Your task to perform on an android device: What's the weather going to be this weekend? Image 0: 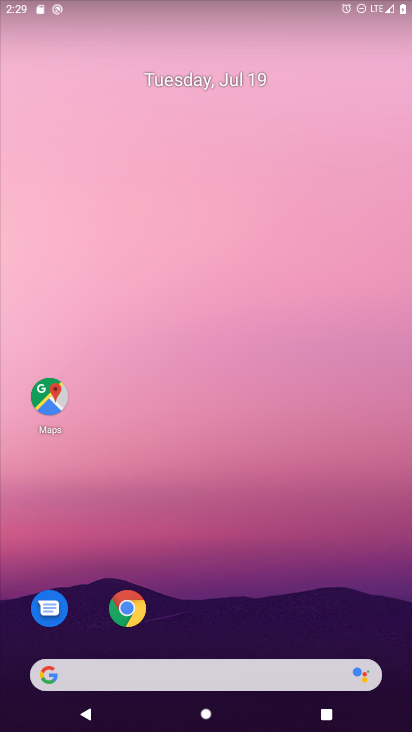
Step 0: drag from (173, 603) to (266, 146)
Your task to perform on an android device: What's the weather going to be this weekend? Image 1: 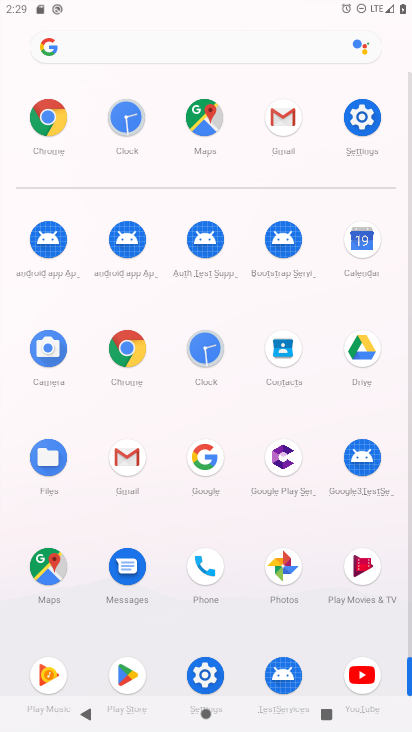
Step 1: click (119, 353)
Your task to perform on an android device: What's the weather going to be this weekend? Image 2: 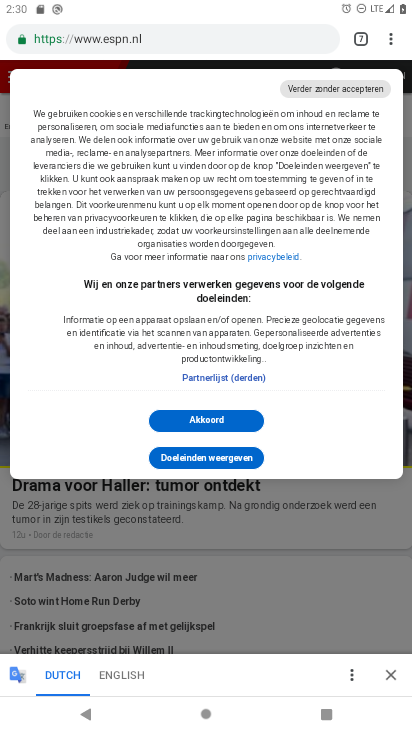
Step 2: click (361, 44)
Your task to perform on an android device: What's the weather going to be this weekend? Image 3: 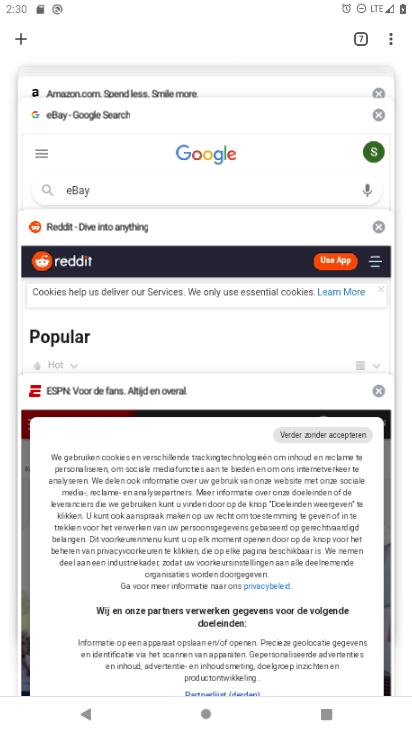
Step 3: click (25, 46)
Your task to perform on an android device: What's the weather going to be this weekend? Image 4: 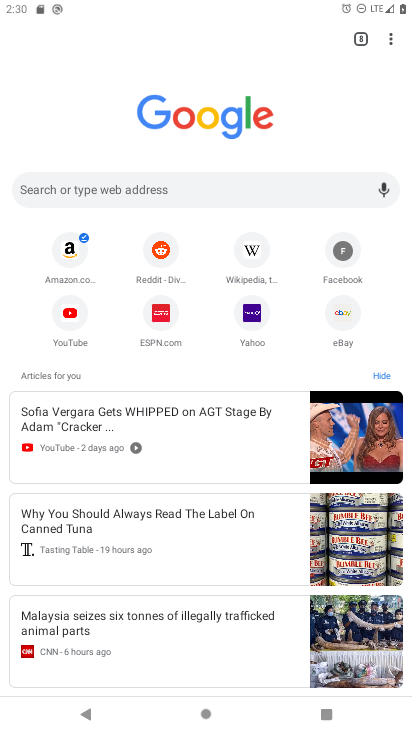
Step 4: click (199, 187)
Your task to perform on an android device: What's the weather going to be this weekend? Image 5: 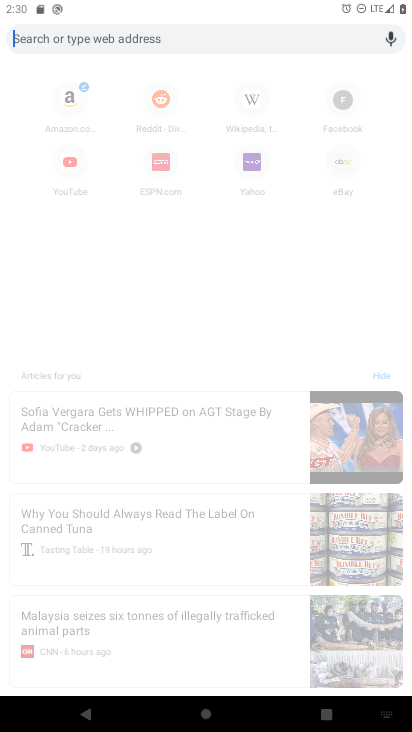
Step 5: type "weather"
Your task to perform on an android device: What's the weather going to be this weekend? Image 6: 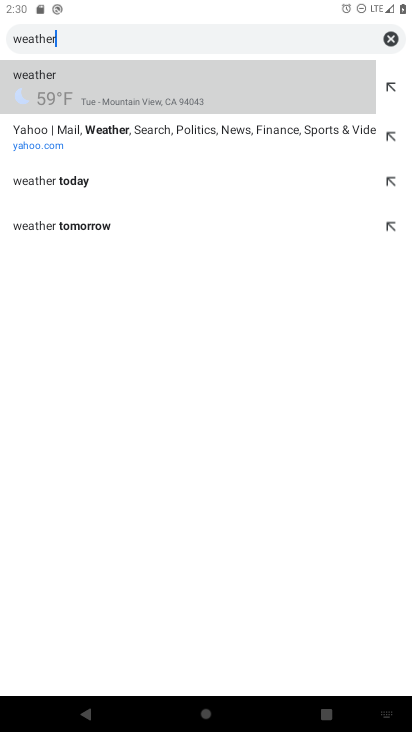
Step 6: type ""
Your task to perform on an android device: What's the weather going to be this weekend? Image 7: 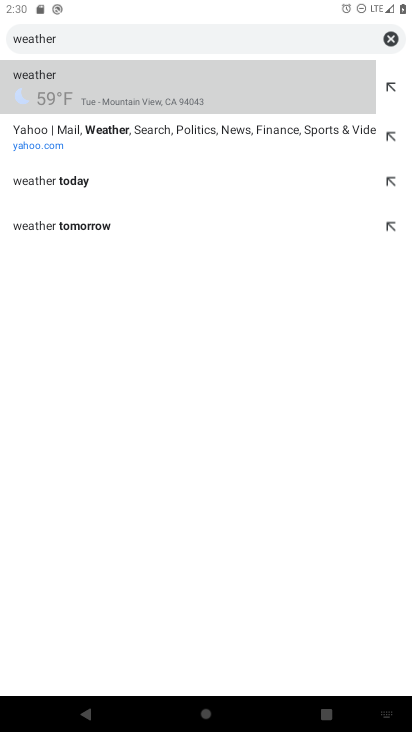
Step 7: click (102, 94)
Your task to perform on an android device: What's the weather going to be this weekend? Image 8: 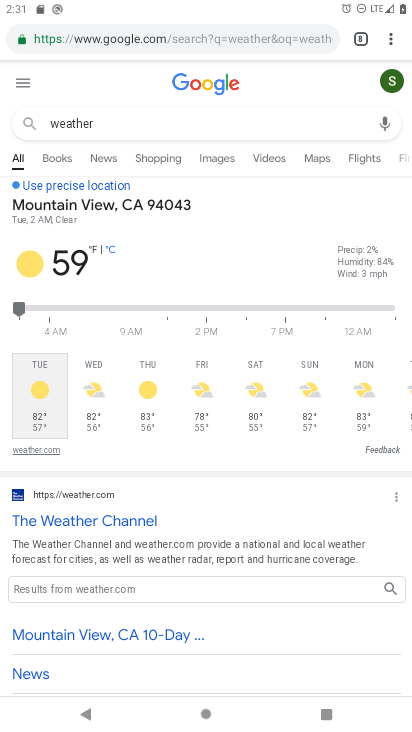
Step 8: task complete